Your task to perform on an android device: Open notification settings Image 0: 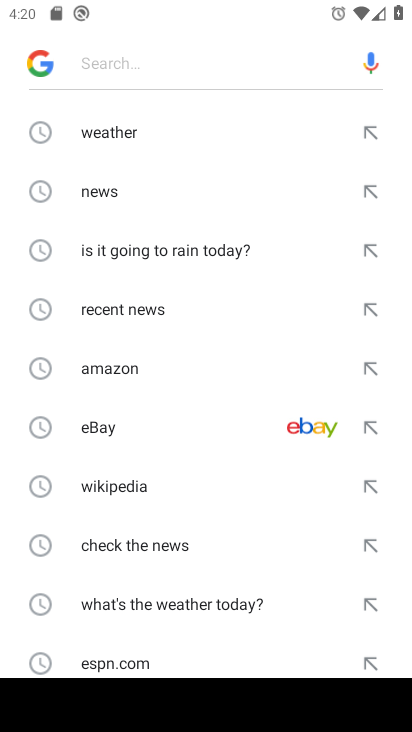
Step 0: press home button
Your task to perform on an android device: Open notification settings Image 1: 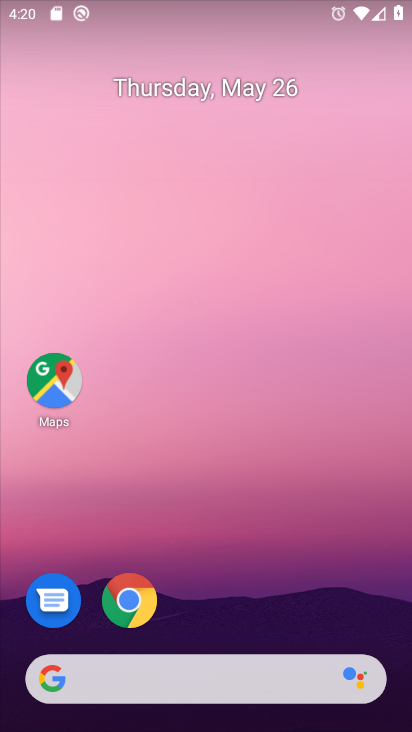
Step 1: drag from (161, 403) to (259, 0)
Your task to perform on an android device: Open notification settings Image 2: 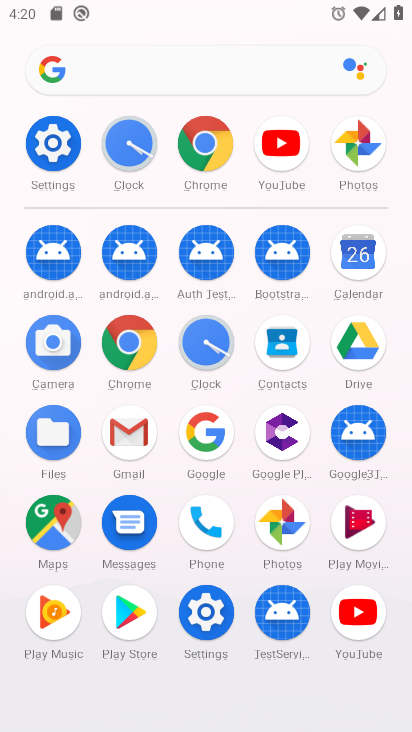
Step 2: click (62, 221)
Your task to perform on an android device: Open notification settings Image 3: 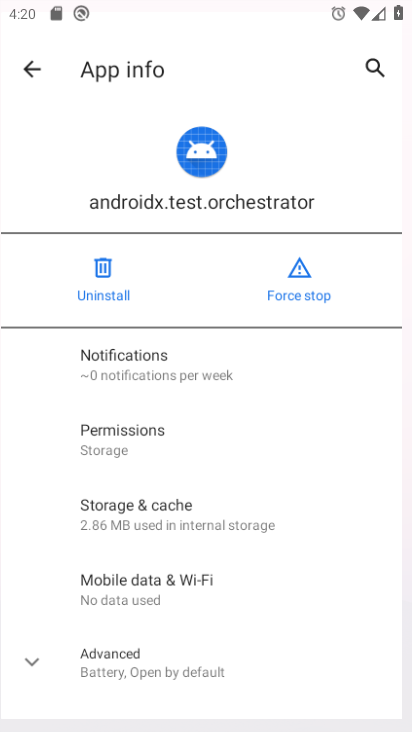
Step 3: click (55, 170)
Your task to perform on an android device: Open notification settings Image 4: 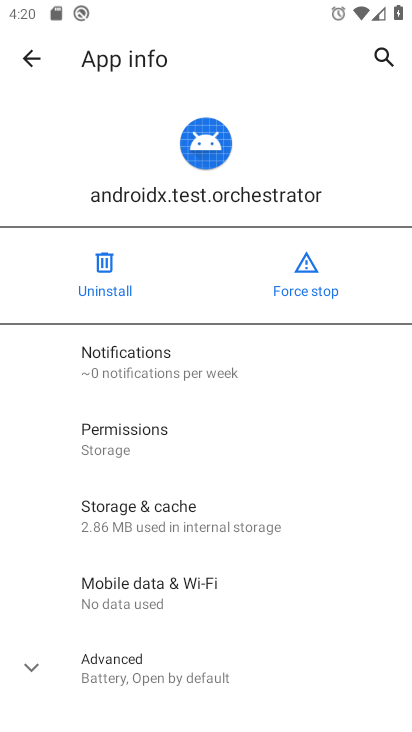
Step 4: click (39, 57)
Your task to perform on an android device: Open notification settings Image 5: 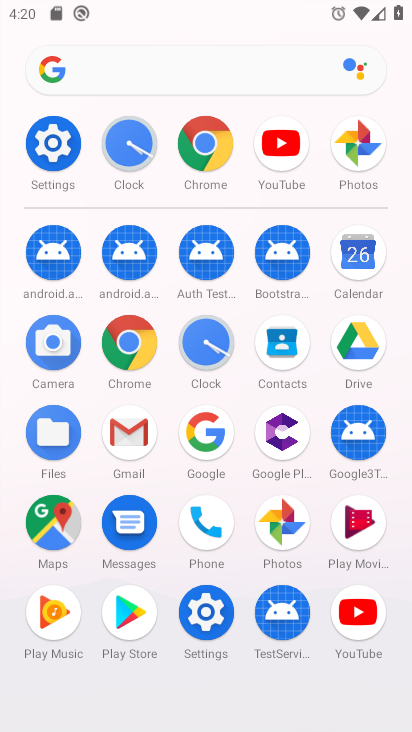
Step 5: click (57, 157)
Your task to perform on an android device: Open notification settings Image 6: 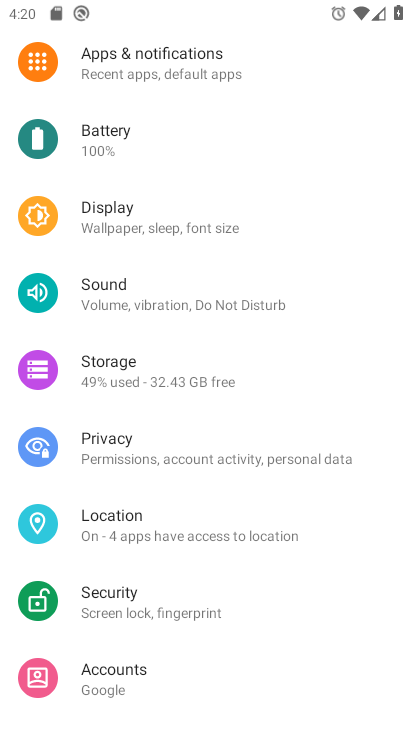
Step 6: click (186, 66)
Your task to perform on an android device: Open notification settings Image 7: 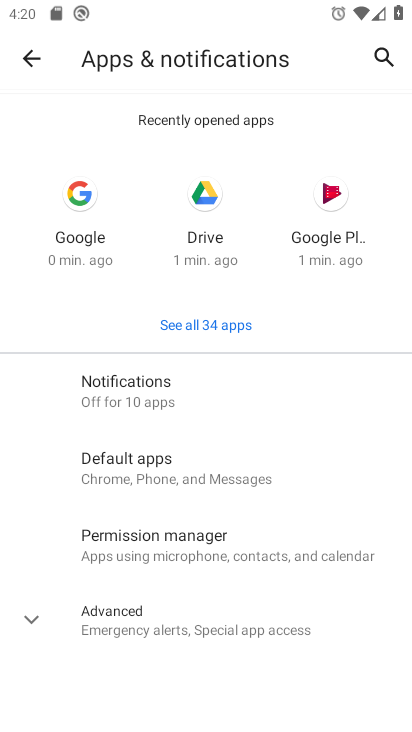
Step 7: click (168, 399)
Your task to perform on an android device: Open notification settings Image 8: 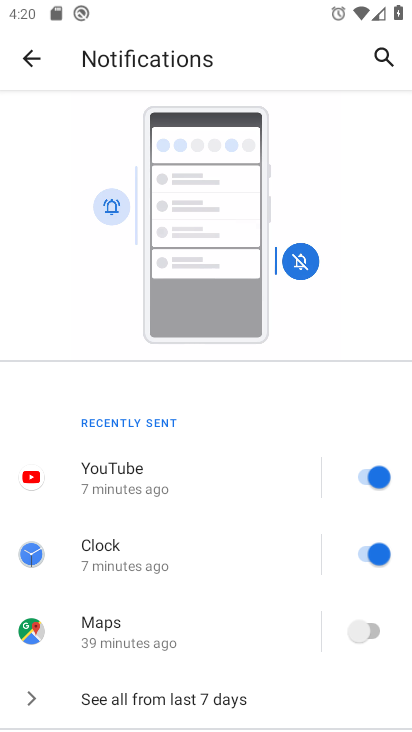
Step 8: task complete